Your task to perform on an android device: Go to Yahoo.com Image 0: 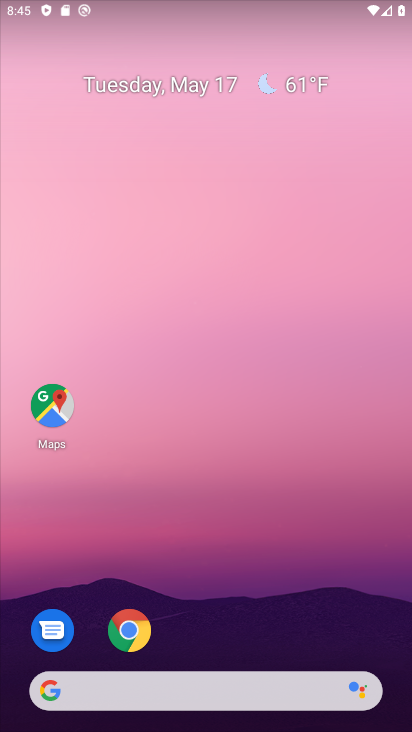
Step 0: click (117, 634)
Your task to perform on an android device: Go to Yahoo.com Image 1: 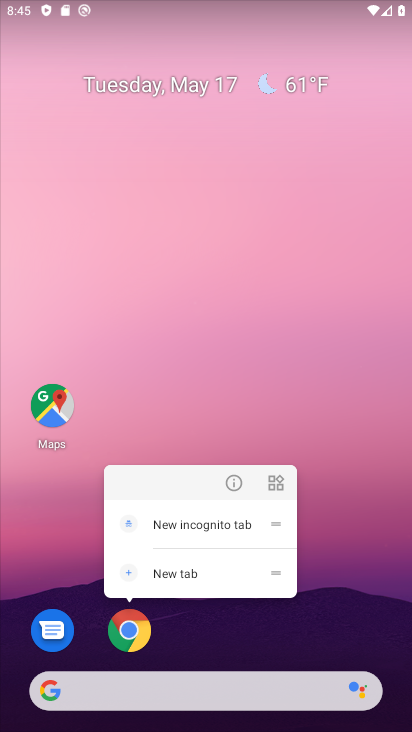
Step 1: click (126, 633)
Your task to perform on an android device: Go to Yahoo.com Image 2: 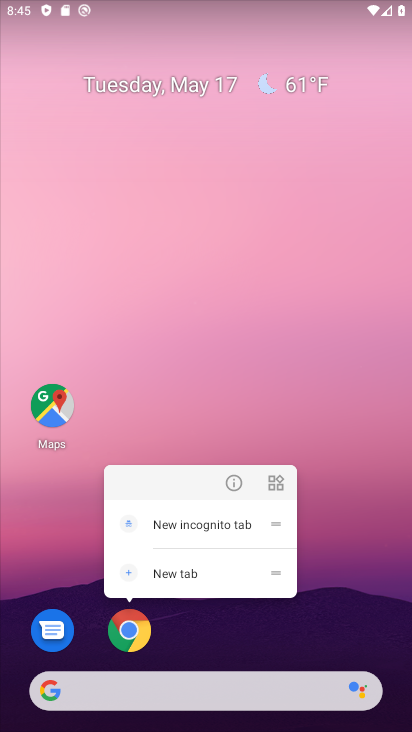
Step 2: click (130, 634)
Your task to perform on an android device: Go to Yahoo.com Image 3: 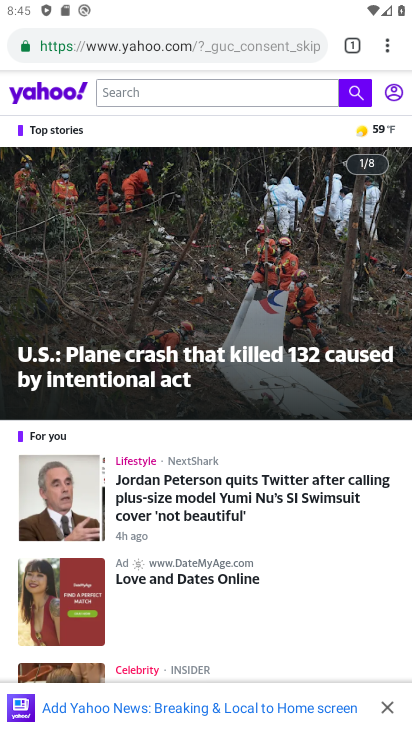
Step 3: task complete